Your task to perform on an android device: set the stopwatch Image 0: 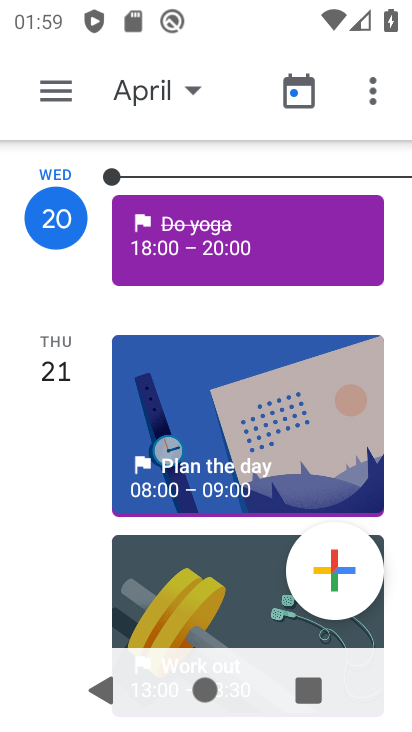
Step 0: press home button
Your task to perform on an android device: set the stopwatch Image 1: 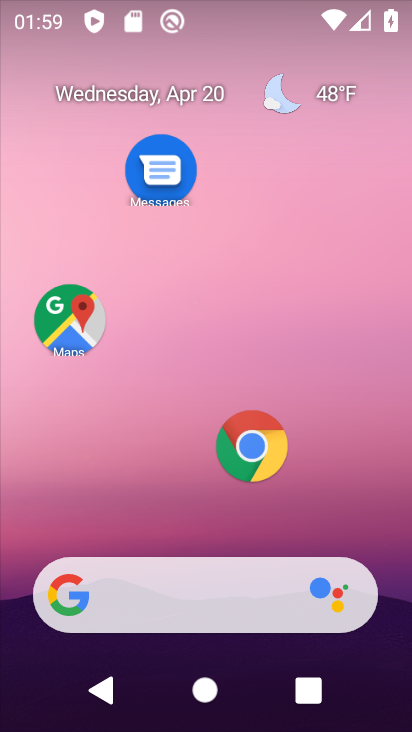
Step 1: drag from (216, 535) to (240, 58)
Your task to perform on an android device: set the stopwatch Image 2: 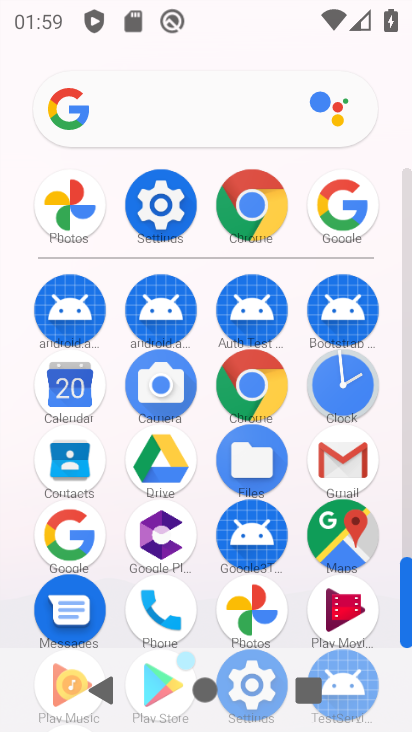
Step 2: click (341, 374)
Your task to perform on an android device: set the stopwatch Image 3: 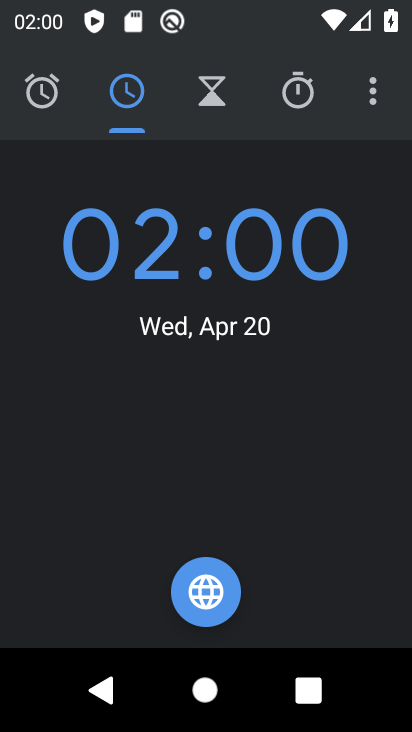
Step 3: click (369, 87)
Your task to perform on an android device: set the stopwatch Image 4: 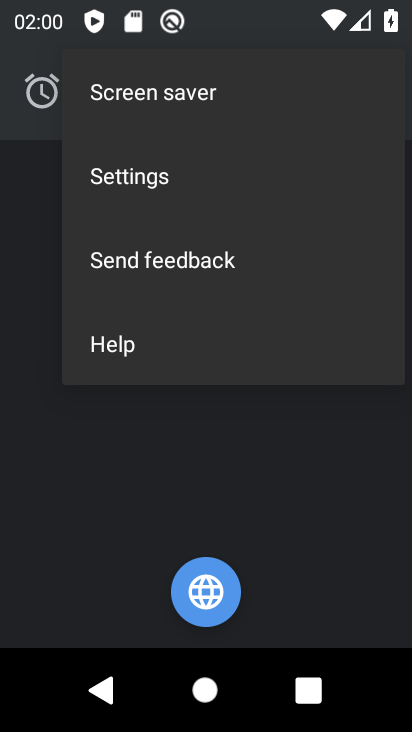
Step 4: click (302, 442)
Your task to perform on an android device: set the stopwatch Image 5: 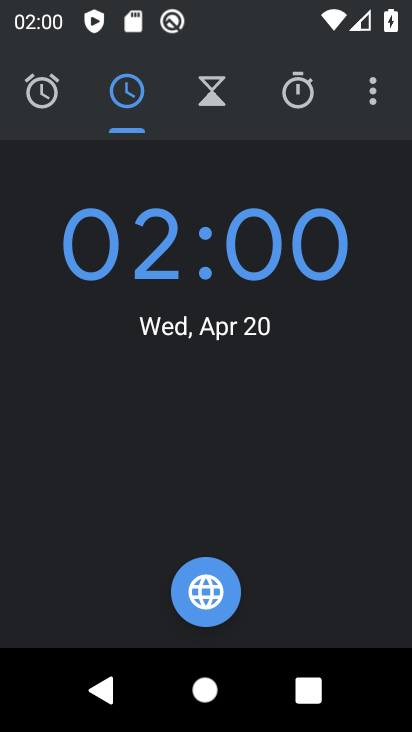
Step 5: click (296, 86)
Your task to perform on an android device: set the stopwatch Image 6: 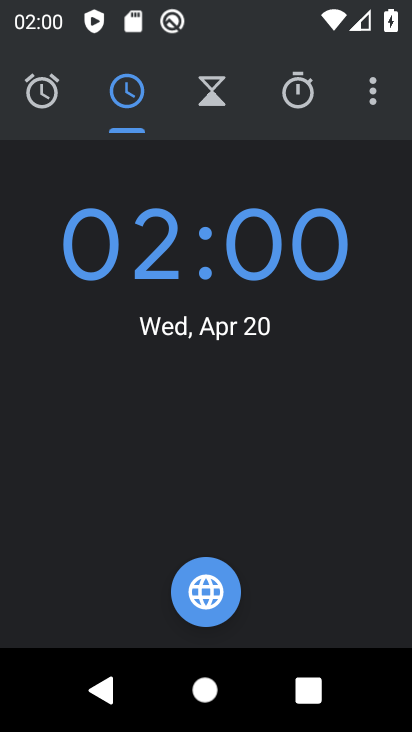
Step 6: click (299, 81)
Your task to perform on an android device: set the stopwatch Image 7: 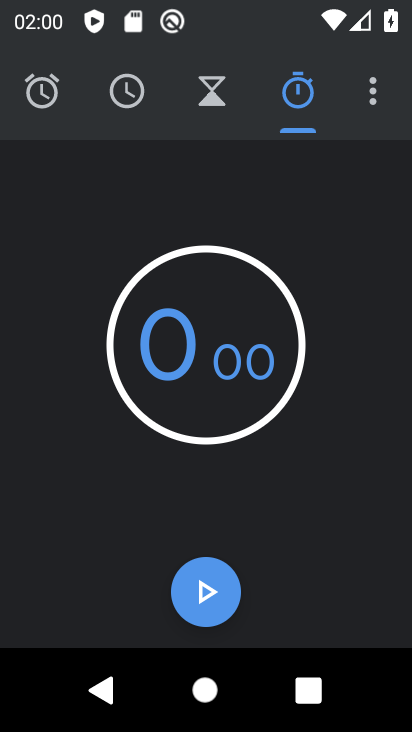
Step 7: click (202, 583)
Your task to perform on an android device: set the stopwatch Image 8: 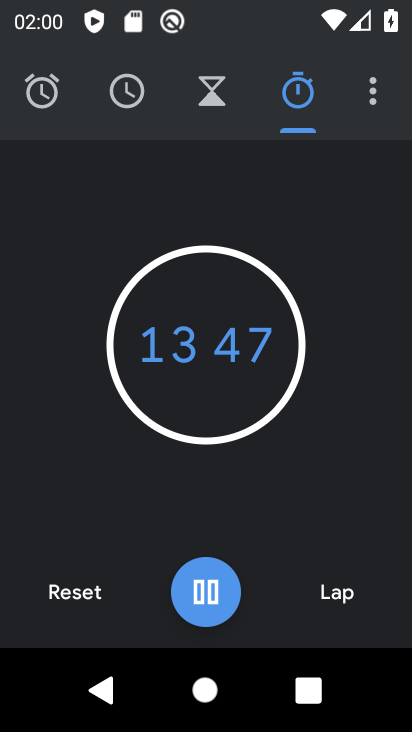
Step 8: task complete